Your task to perform on an android device: turn pop-ups off in chrome Image 0: 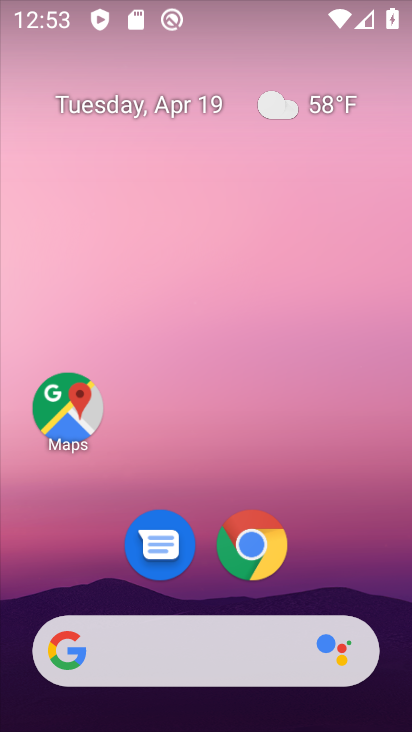
Step 0: click (259, 531)
Your task to perform on an android device: turn pop-ups off in chrome Image 1: 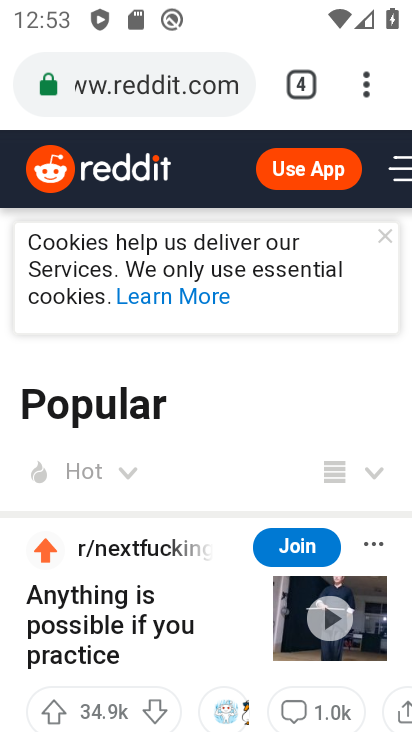
Step 1: click (362, 76)
Your task to perform on an android device: turn pop-ups off in chrome Image 2: 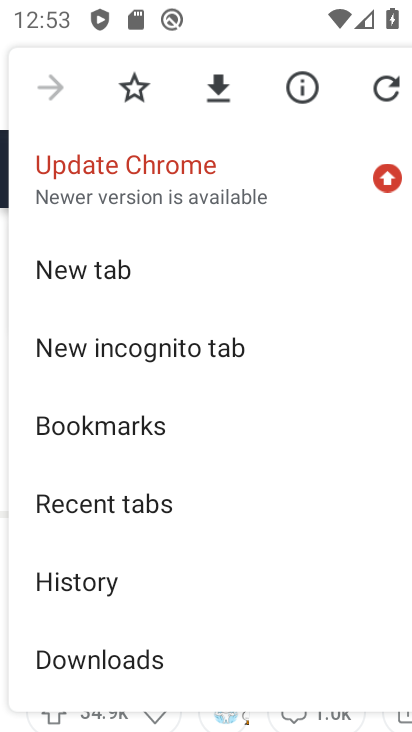
Step 2: drag from (185, 605) to (276, 100)
Your task to perform on an android device: turn pop-ups off in chrome Image 3: 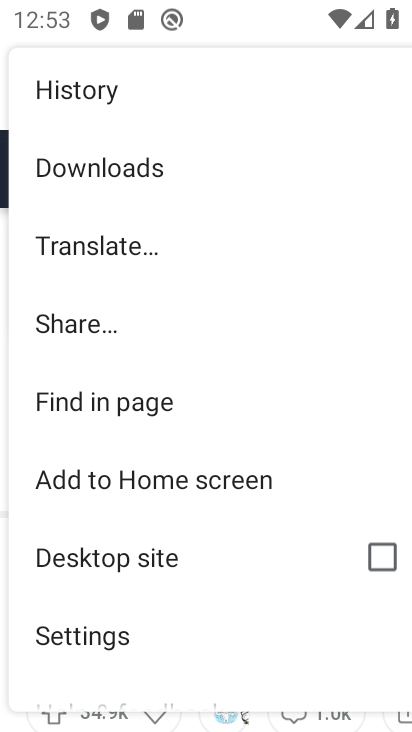
Step 3: click (89, 637)
Your task to perform on an android device: turn pop-ups off in chrome Image 4: 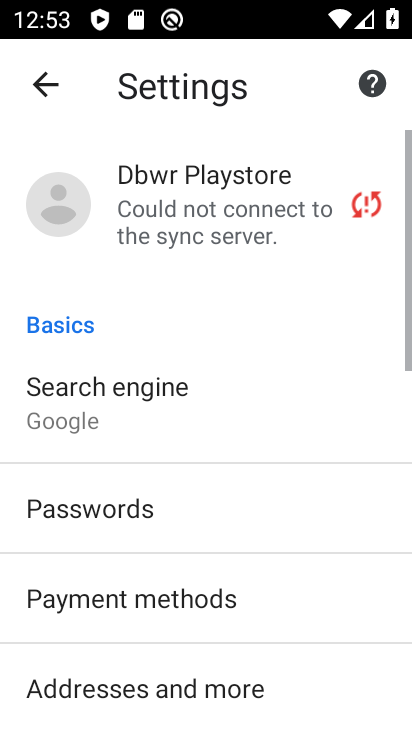
Step 4: drag from (151, 495) to (196, 192)
Your task to perform on an android device: turn pop-ups off in chrome Image 5: 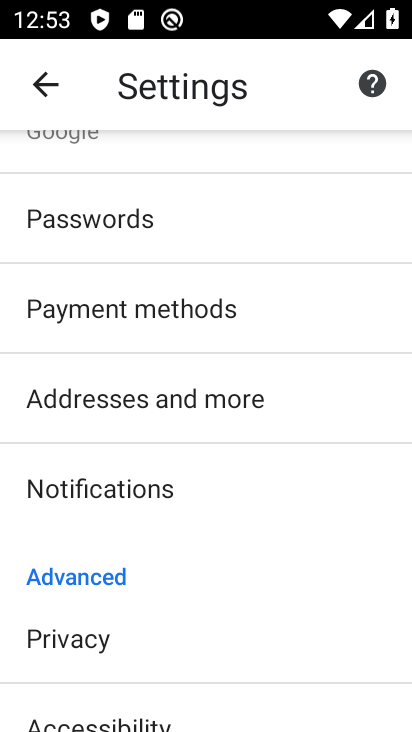
Step 5: drag from (144, 607) to (204, 215)
Your task to perform on an android device: turn pop-ups off in chrome Image 6: 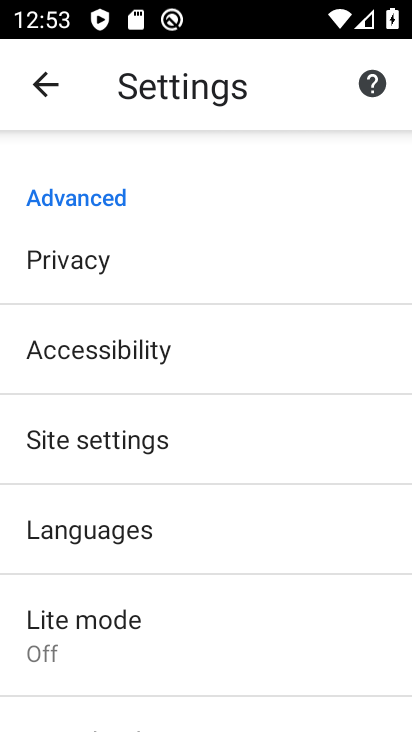
Step 6: click (106, 452)
Your task to perform on an android device: turn pop-ups off in chrome Image 7: 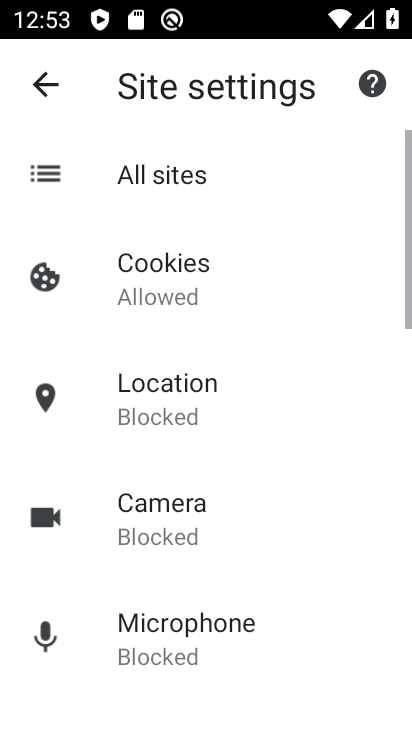
Step 7: drag from (184, 600) to (296, 113)
Your task to perform on an android device: turn pop-ups off in chrome Image 8: 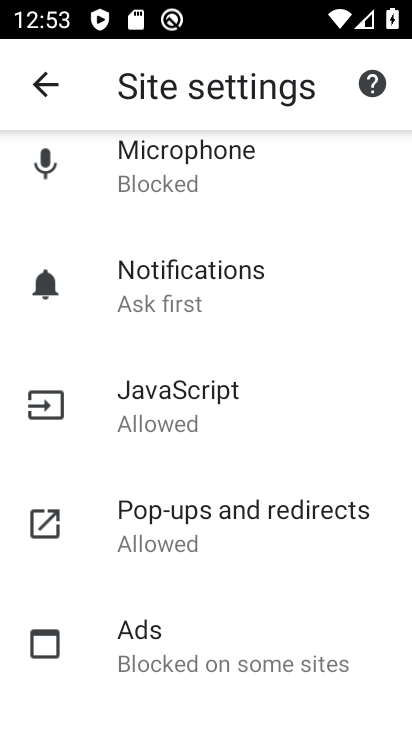
Step 8: click (152, 517)
Your task to perform on an android device: turn pop-ups off in chrome Image 9: 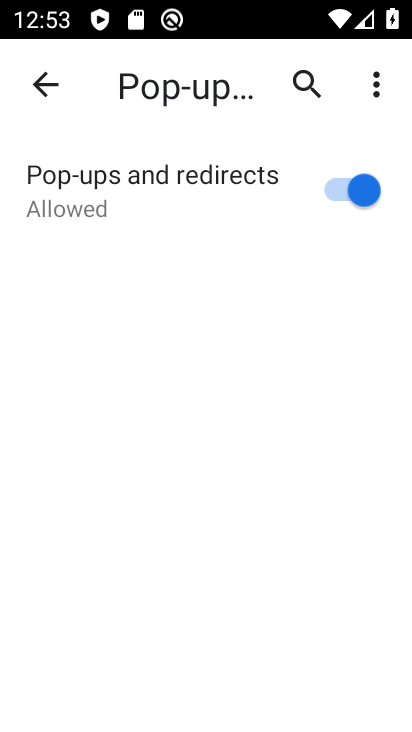
Step 9: click (359, 191)
Your task to perform on an android device: turn pop-ups off in chrome Image 10: 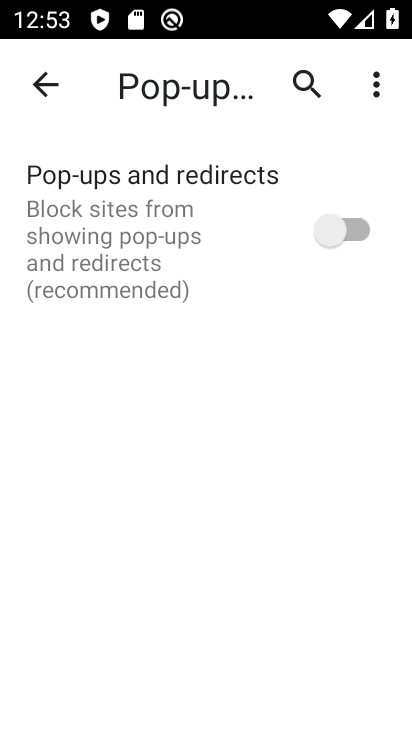
Step 10: task complete